Your task to perform on an android device: turn on airplane mode Image 0: 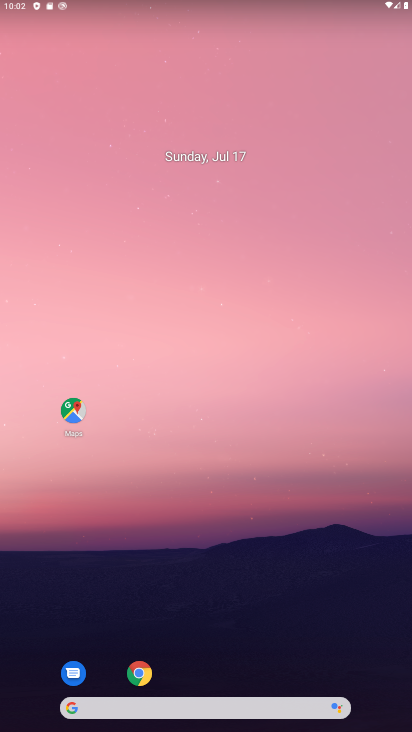
Step 0: drag from (392, 681) to (334, 145)
Your task to perform on an android device: turn on airplane mode Image 1: 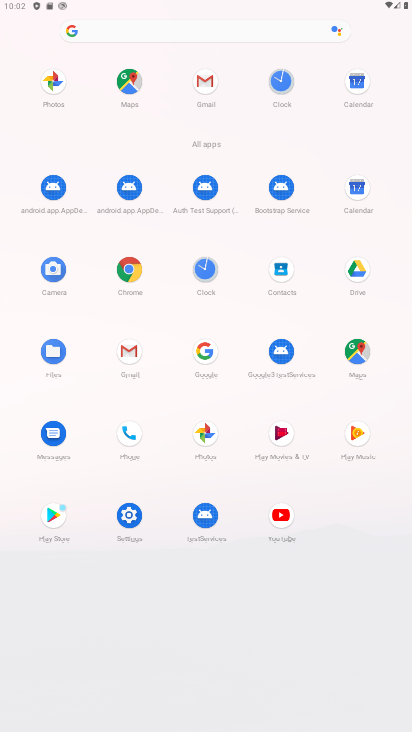
Step 1: click (129, 514)
Your task to perform on an android device: turn on airplane mode Image 2: 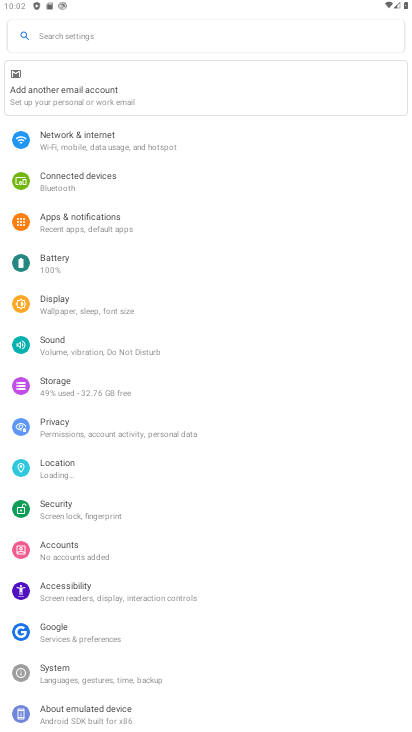
Step 2: click (73, 134)
Your task to perform on an android device: turn on airplane mode Image 3: 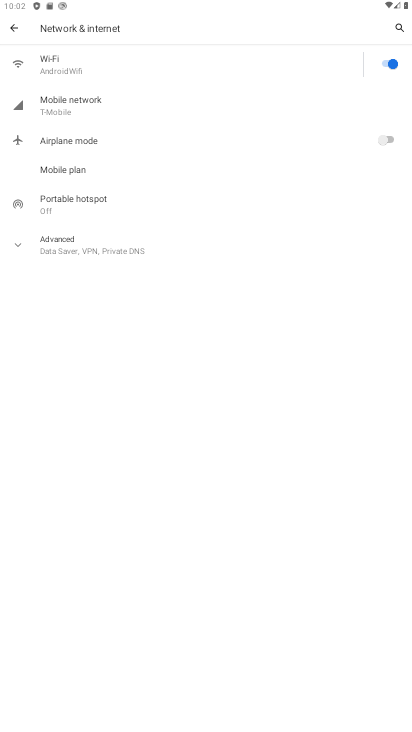
Step 3: click (390, 138)
Your task to perform on an android device: turn on airplane mode Image 4: 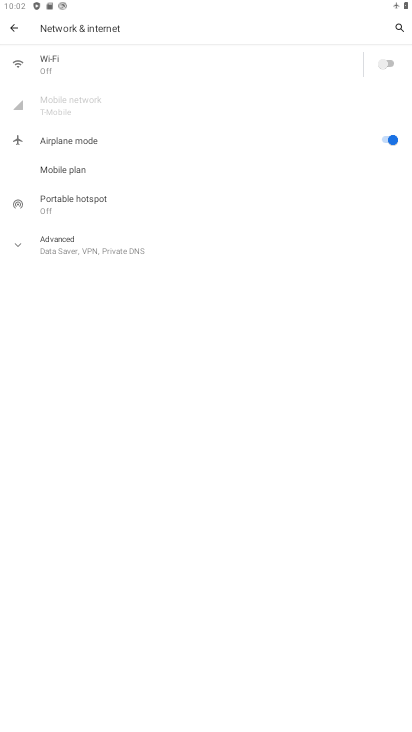
Step 4: task complete